Your task to perform on an android device: change the clock display to digital Image 0: 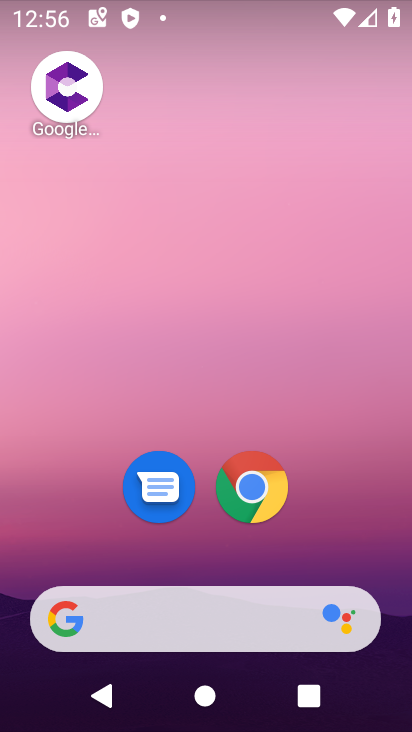
Step 0: drag from (370, 541) to (301, 23)
Your task to perform on an android device: change the clock display to digital Image 1: 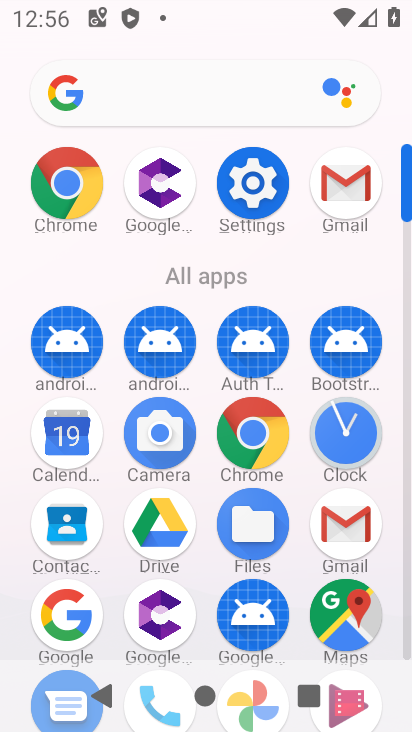
Step 1: click (328, 423)
Your task to perform on an android device: change the clock display to digital Image 2: 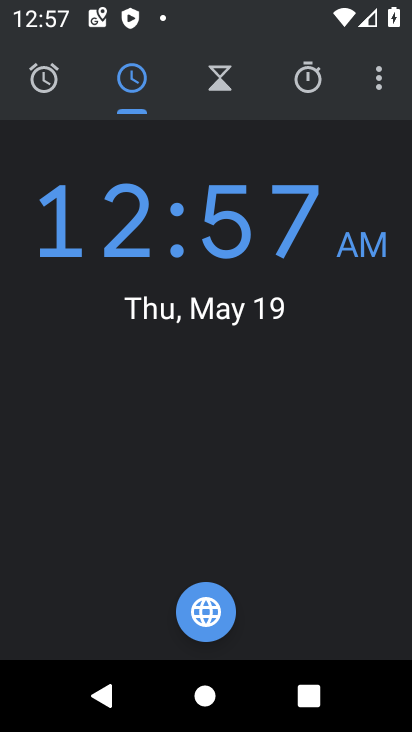
Step 2: click (386, 87)
Your task to perform on an android device: change the clock display to digital Image 3: 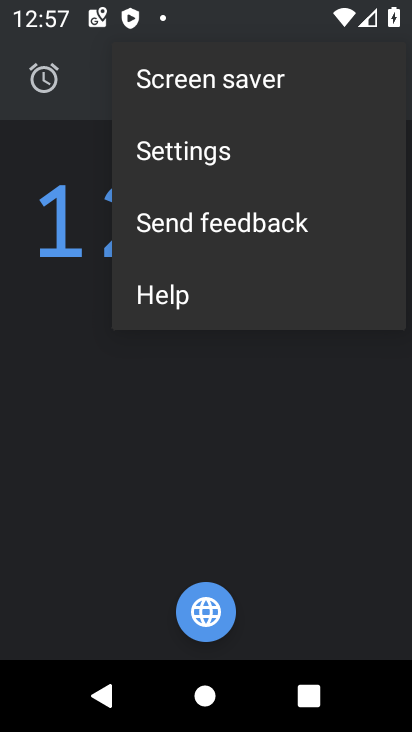
Step 3: click (315, 159)
Your task to perform on an android device: change the clock display to digital Image 4: 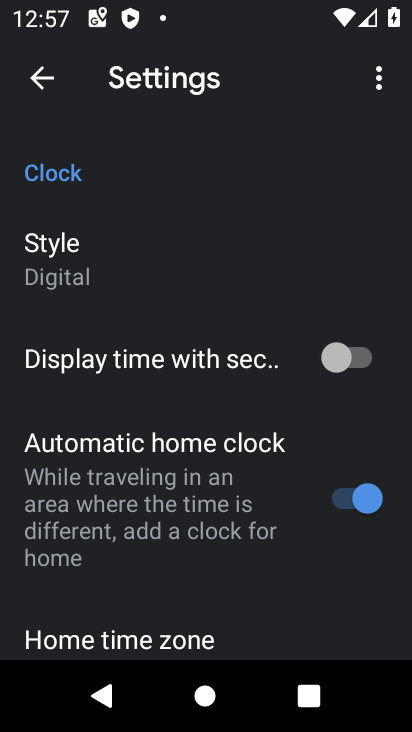
Step 4: task complete